Your task to perform on an android device: Open Google Chrome and click the shortcut for Amazon.com Image 0: 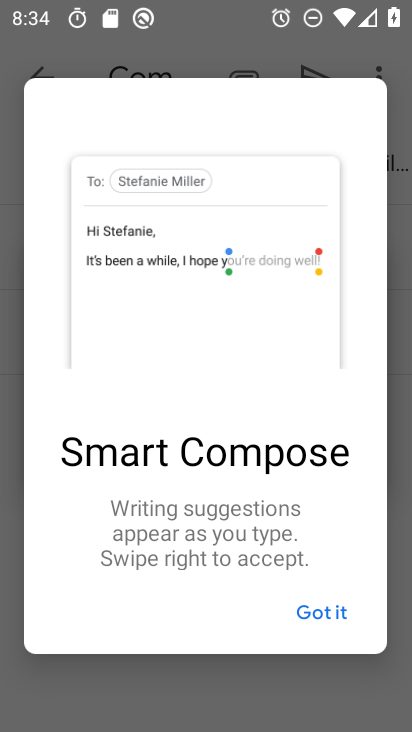
Step 0: click (315, 611)
Your task to perform on an android device: Open Google Chrome and click the shortcut for Amazon.com Image 1: 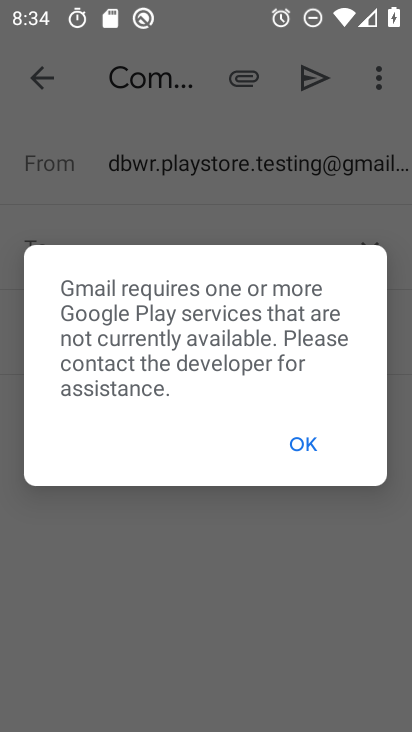
Step 1: click (303, 433)
Your task to perform on an android device: Open Google Chrome and click the shortcut for Amazon.com Image 2: 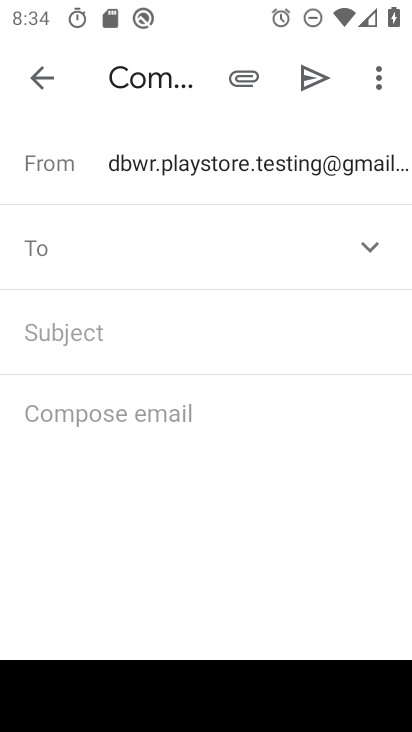
Step 2: press home button
Your task to perform on an android device: Open Google Chrome and click the shortcut for Amazon.com Image 3: 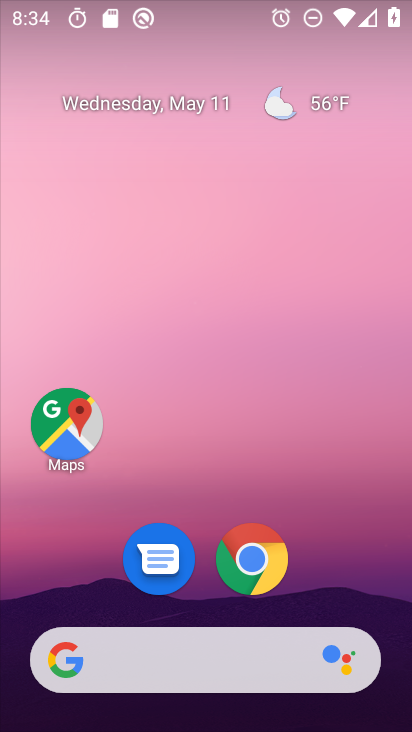
Step 3: click (263, 567)
Your task to perform on an android device: Open Google Chrome and click the shortcut for Amazon.com Image 4: 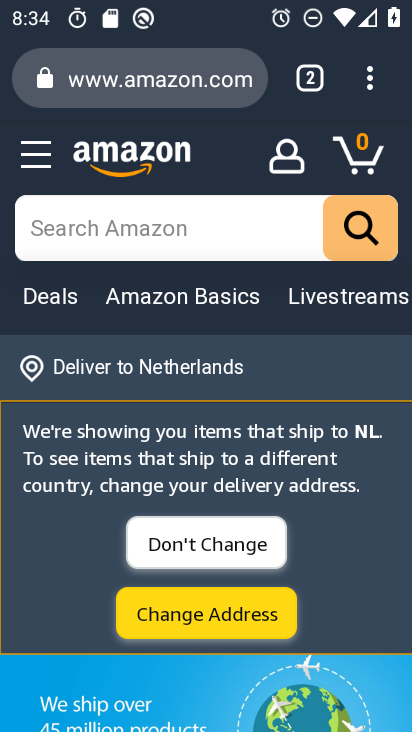
Step 4: task complete